Your task to perform on an android device: turn on the 24-hour format for clock Image 0: 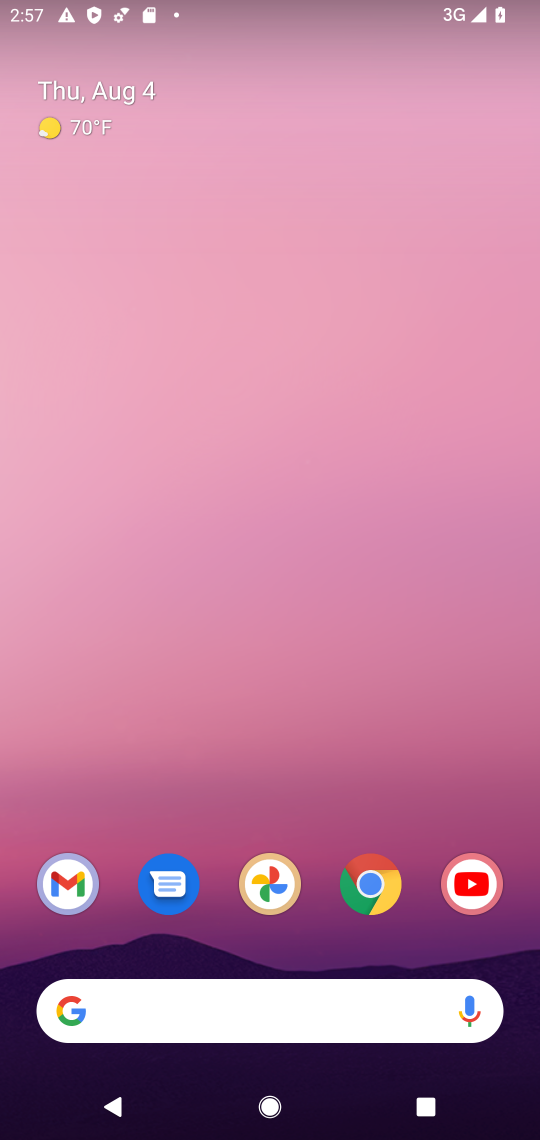
Step 0: press home button
Your task to perform on an android device: turn on the 24-hour format for clock Image 1: 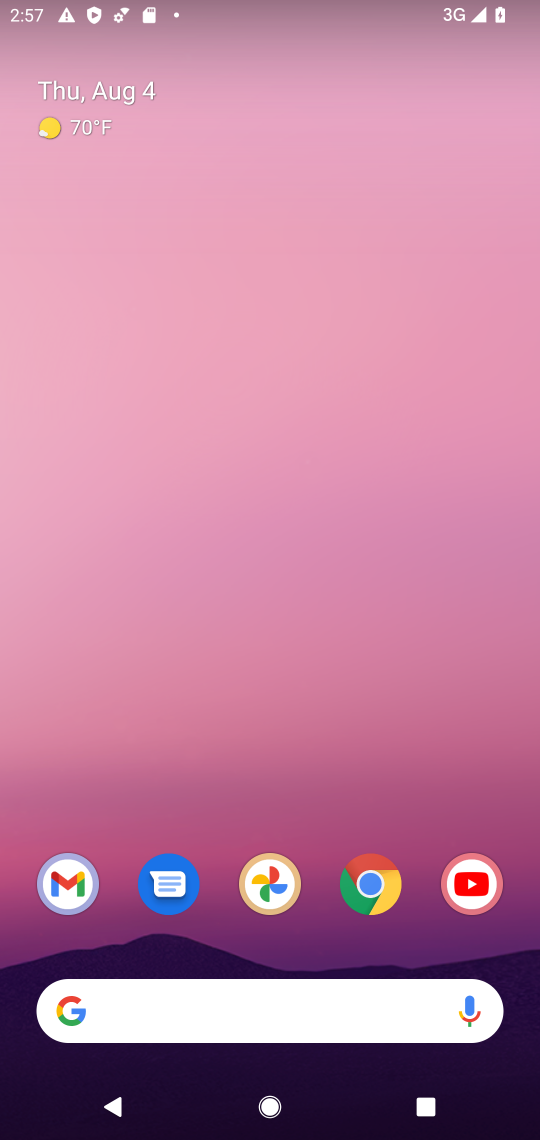
Step 1: drag from (417, 821) to (426, 192)
Your task to perform on an android device: turn on the 24-hour format for clock Image 2: 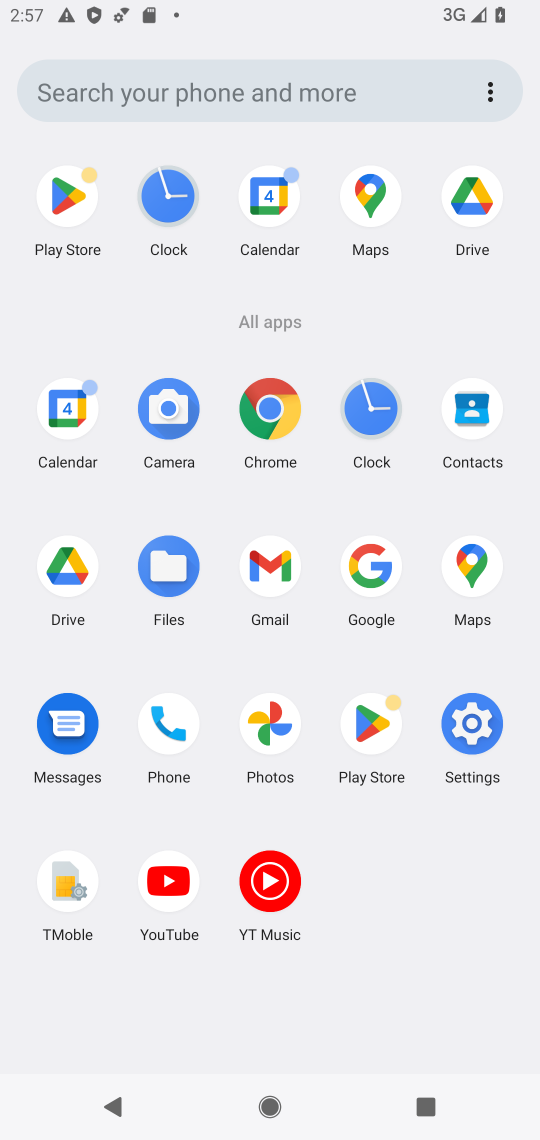
Step 2: click (365, 419)
Your task to perform on an android device: turn on the 24-hour format for clock Image 3: 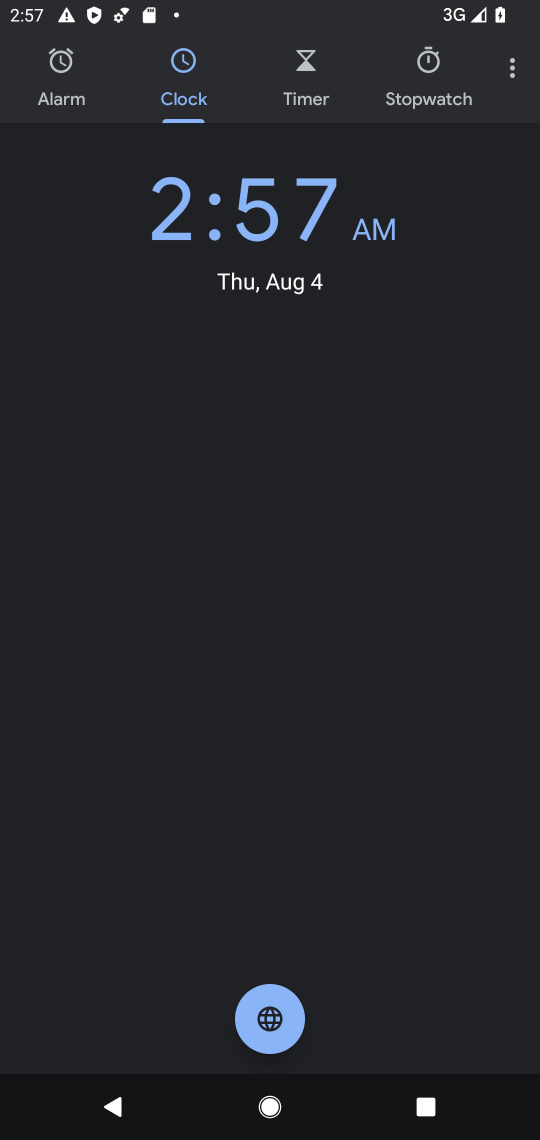
Step 3: click (515, 72)
Your task to perform on an android device: turn on the 24-hour format for clock Image 4: 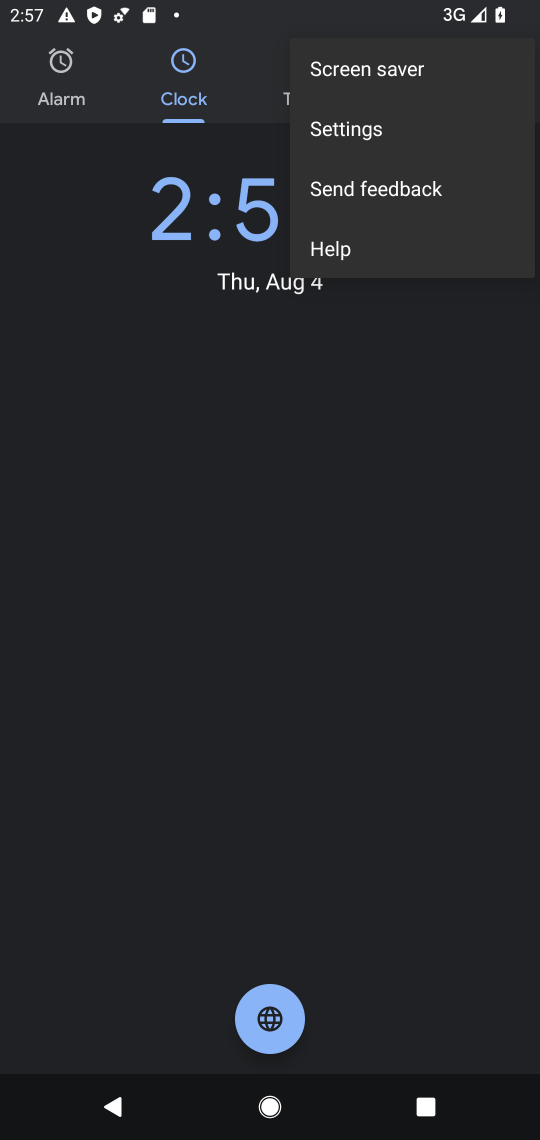
Step 4: click (395, 134)
Your task to perform on an android device: turn on the 24-hour format for clock Image 5: 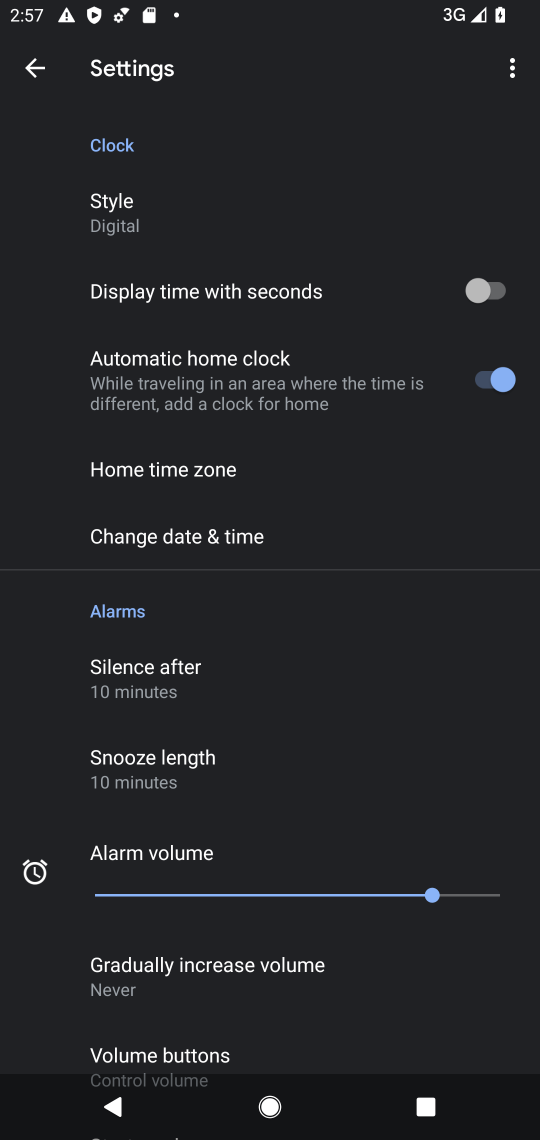
Step 5: drag from (411, 642) to (425, 543)
Your task to perform on an android device: turn on the 24-hour format for clock Image 6: 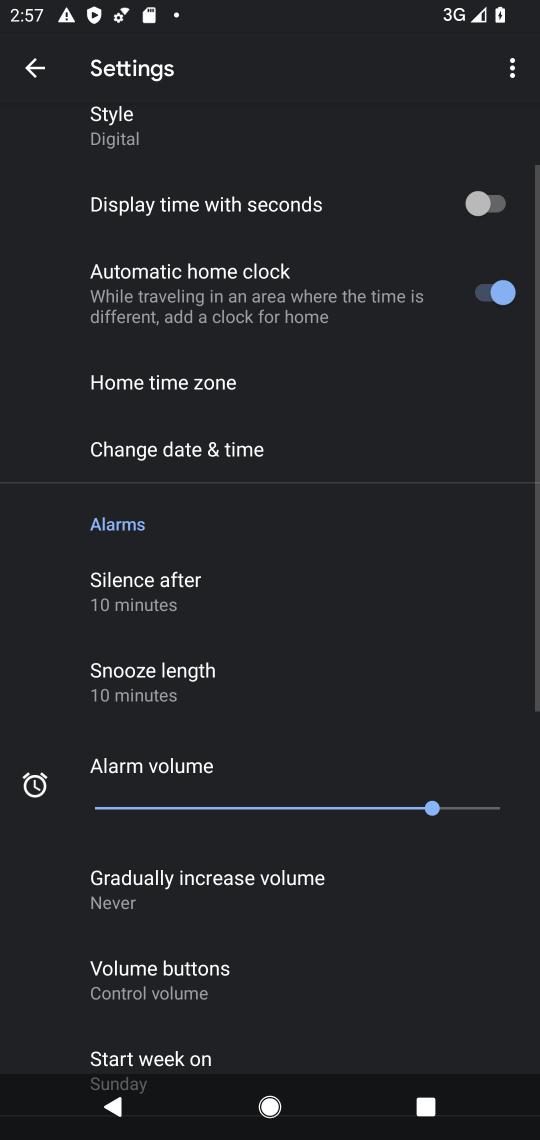
Step 6: drag from (413, 725) to (417, 552)
Your task to perform on an android device: turn on the 24-hour format for clock Image 7: 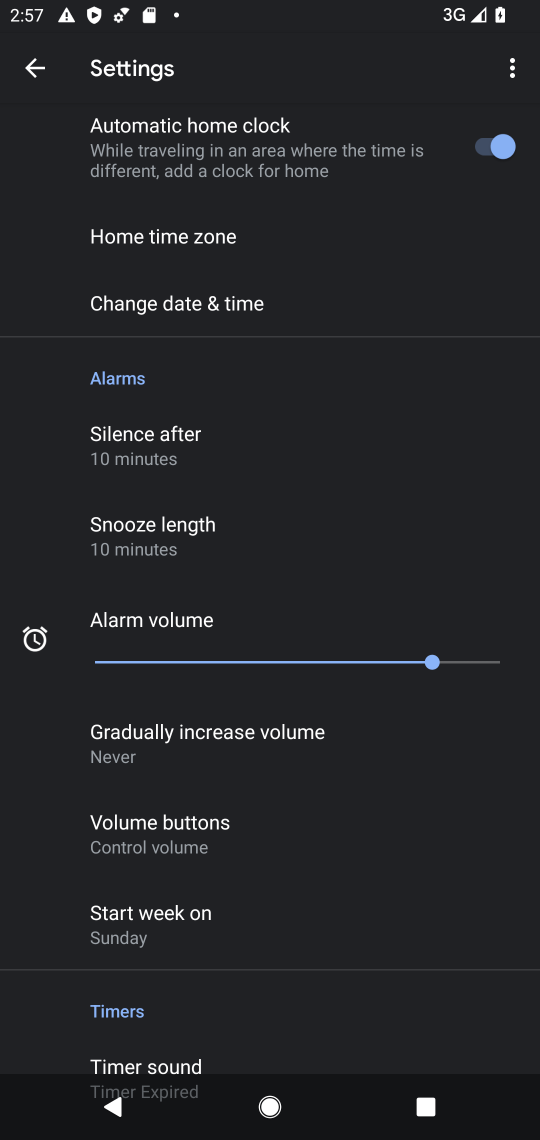
Step 7: drag from (391, 758) to (402, 593)
Your task to perform on an android device: turn on the 24-hour format for clock Image 8: 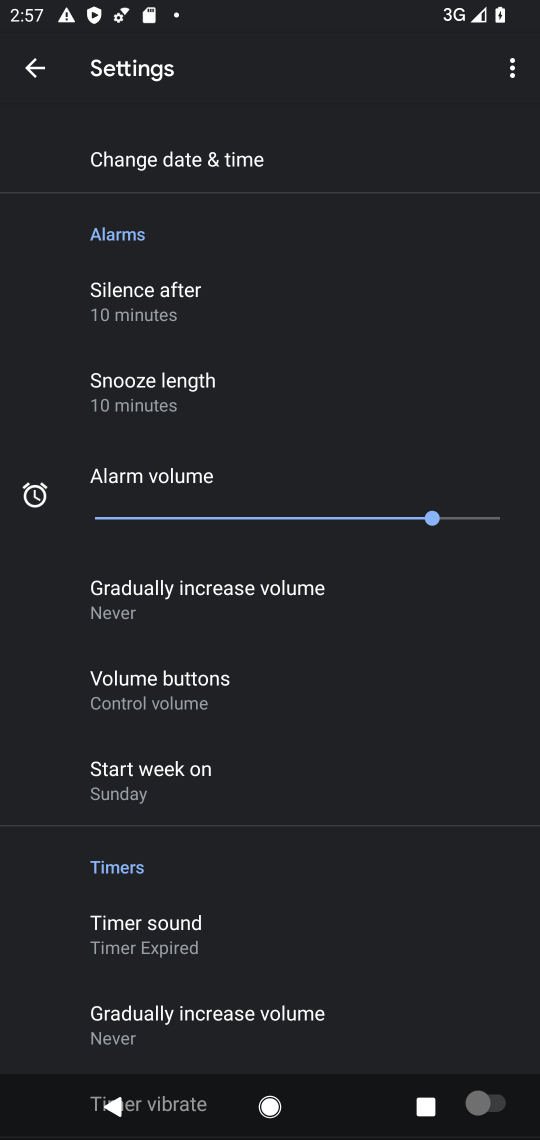
Step 8: drag from (389, 851) to (405, 646)
Your task to perform on an android device: turn on the 24-hour format for clock Image 9: 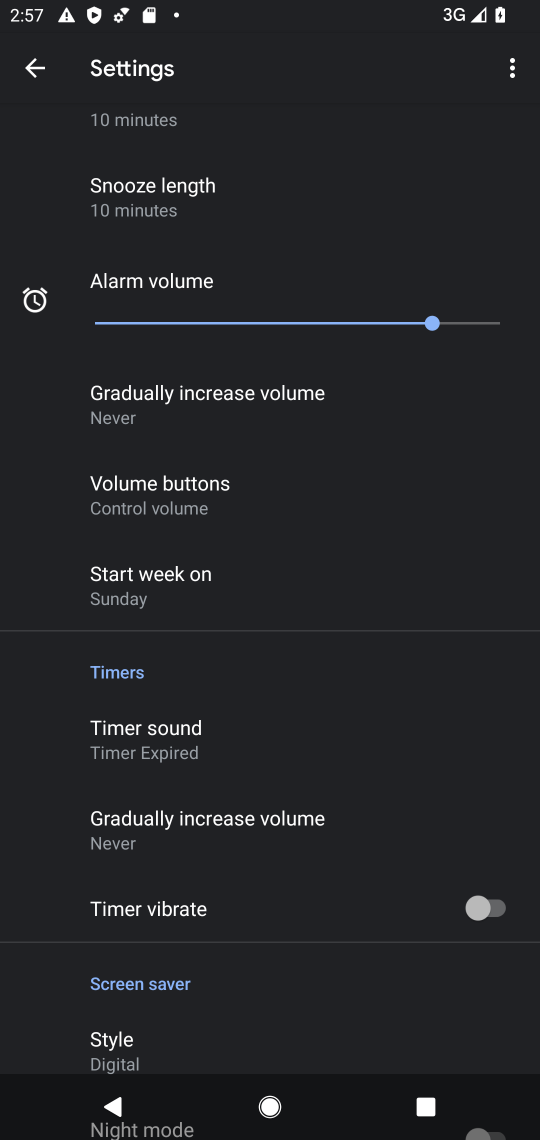
Step 9: drag from (384, 899) to (393, 674)
Your task to perform on an android device: turn on the 24-hour format for clock Image 10: 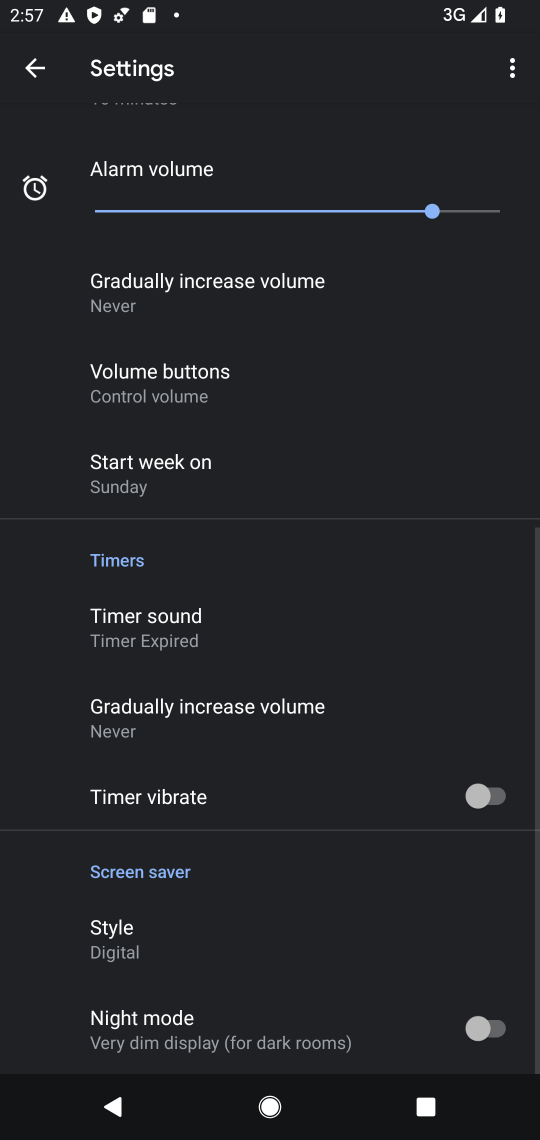
Step 10: drag from (373, 950) to (400, 641)
Your task to perform on an android device: turn on the 24-hour format for clock Image 11: 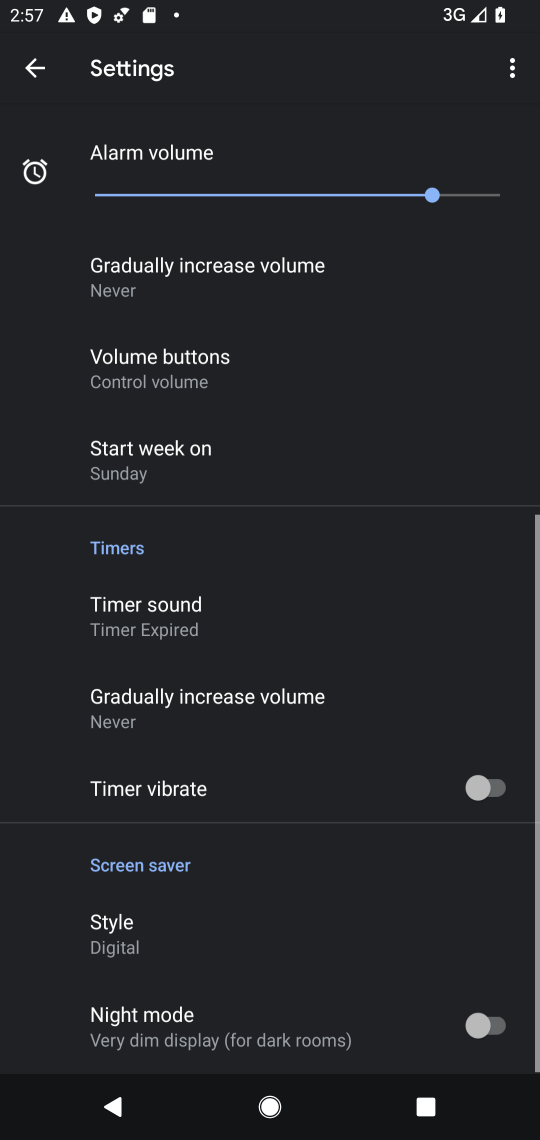
Step 11: drag from (410, 572) to (401, 791)
Your task to perform on an android device: turn on the 24-hour format for clock Image 12: 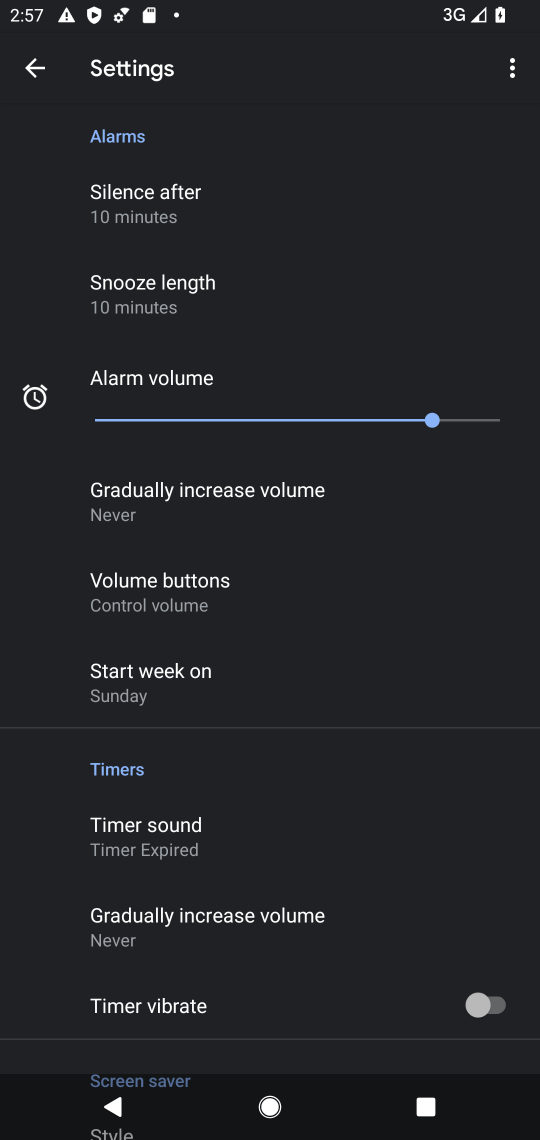
Step 12: drag from (398, 585) to (390, 776)
Your task to perform on an android device: turn on the 24-hour format for clock Image 13: 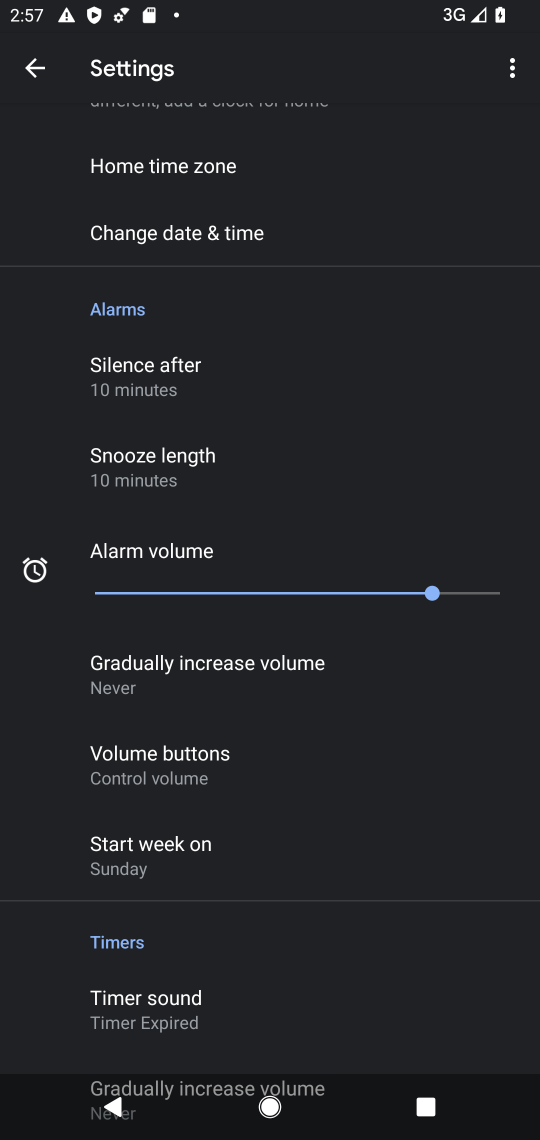
Step 13: drag from (410, 497) to (387, 709)
Your task to perform on an android device: turn on the 24-hour format for clock Image 14: 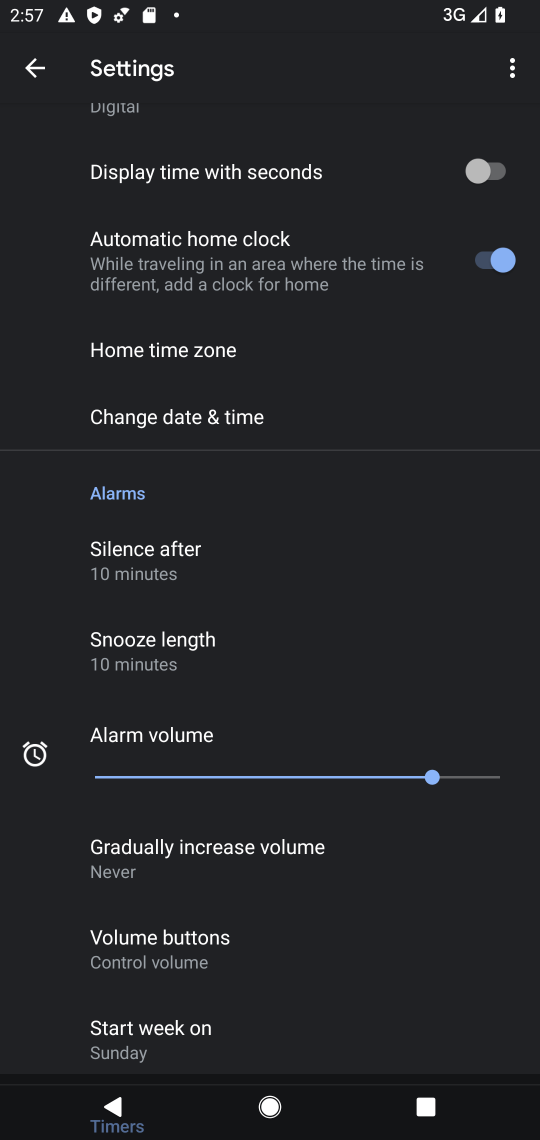
Step 14: drag from (412, 390) to (374, 648)
Your task to perform on an android device: turn on the 24-hour format for clock Image 15: 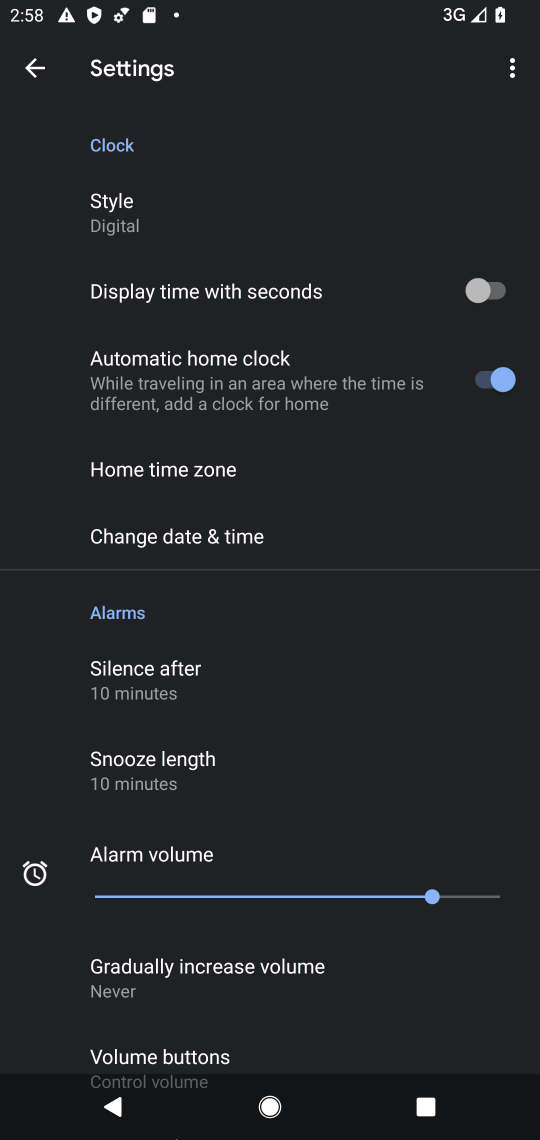
Step 15: click (316, 536)
Your task to perform on an android device: turn on the 24-hour format for clock Image 16: 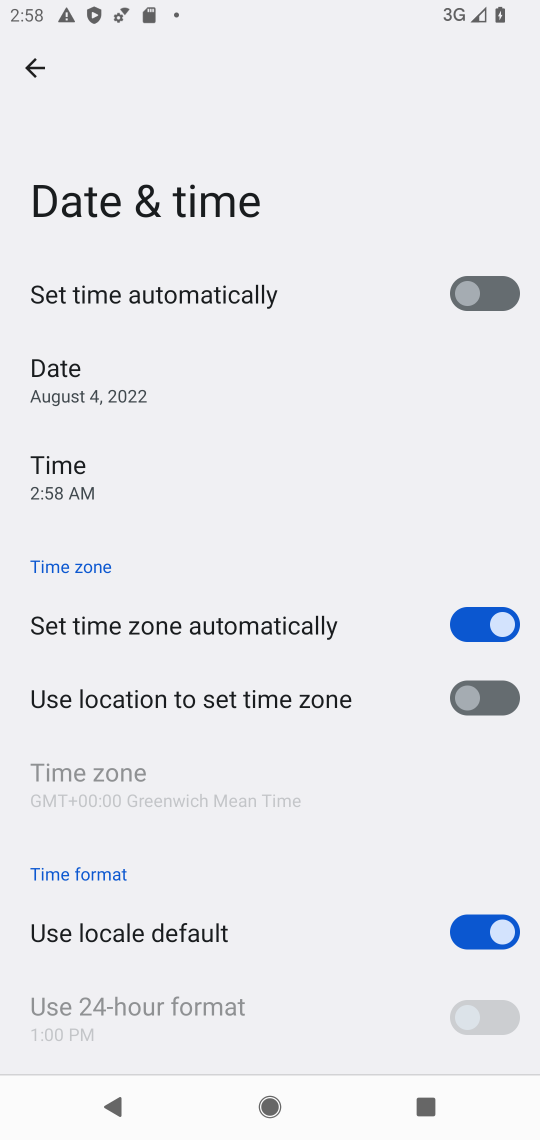
Step 16: click (505, 927)
Your task to perform on an android device: turn on the 24-hour format for clock Image 17: 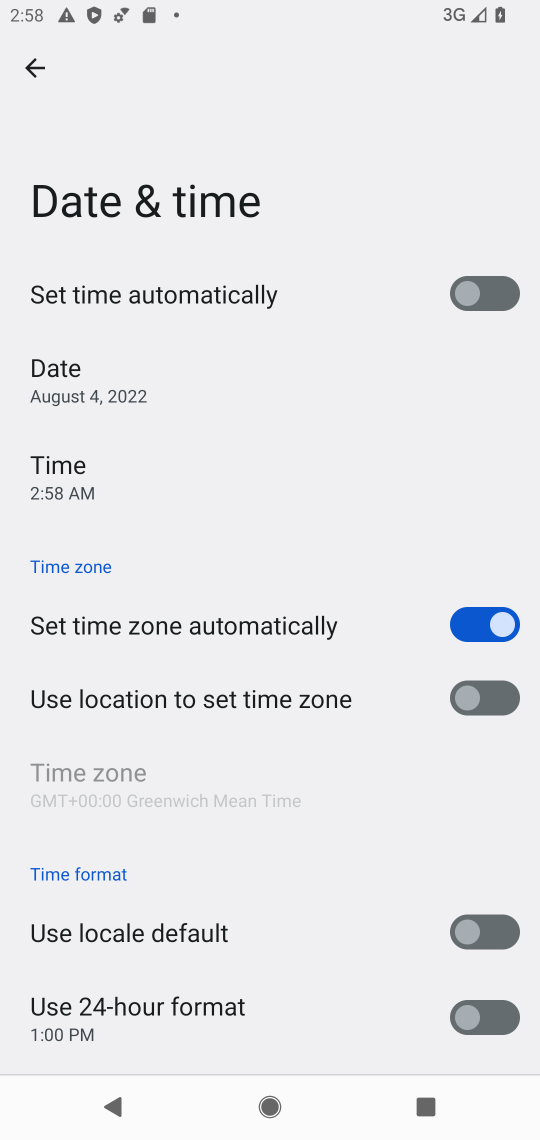
Step 17: click (467, 1016)
Your task to perform on an android device: turn on the 24-hour format for clock Image 18: 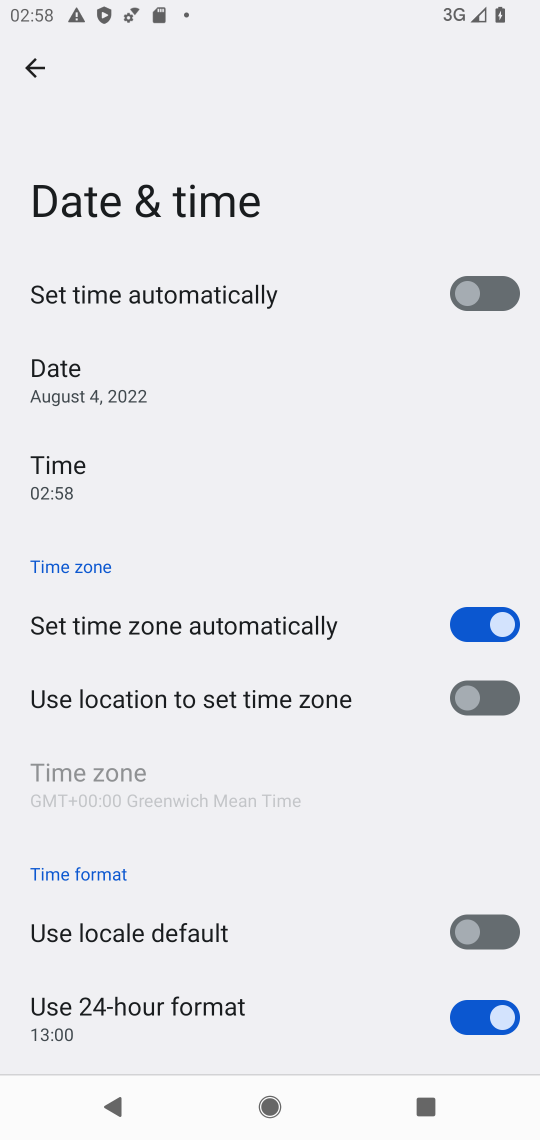
Step 18: task complete